Your task to perform on an android device: Find coffee shops on Maps Image 0: 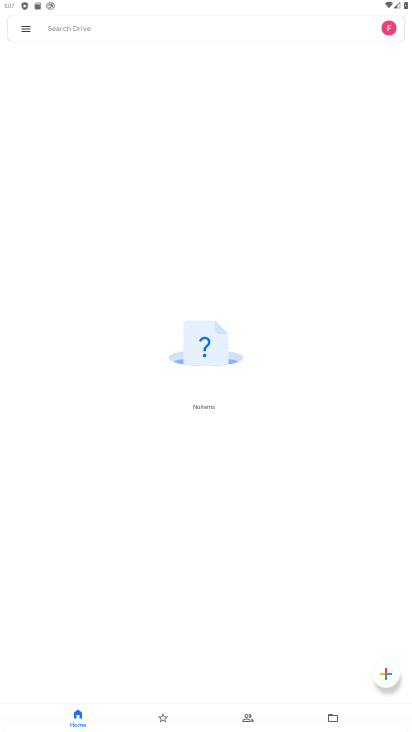
Step 0: press home button
Your task to perform on an android device: Find coffee shops on Maps Image 1: 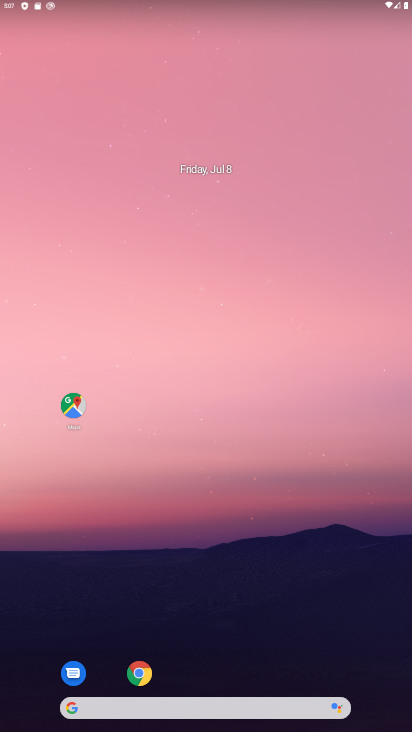
Step 1: click (82, 402)
Your task to perform on an android device: Find coffee shops on Maps Image 2: 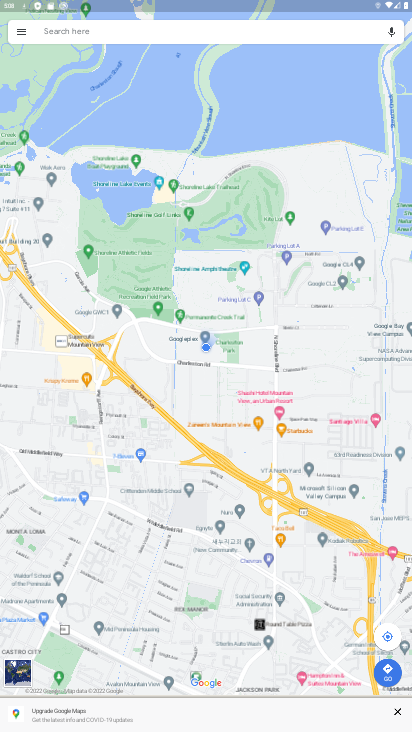
Step 2: click (142, 33)
Your task to perform on an android device: Find coffee shops on Maps Image 3: 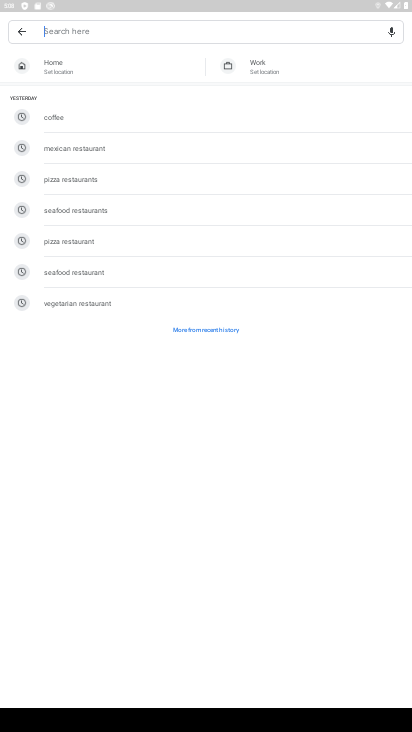
Step 3: type "coffee shops"
Your task to perform on an android device: Find coffee shops on Maps Image 4: 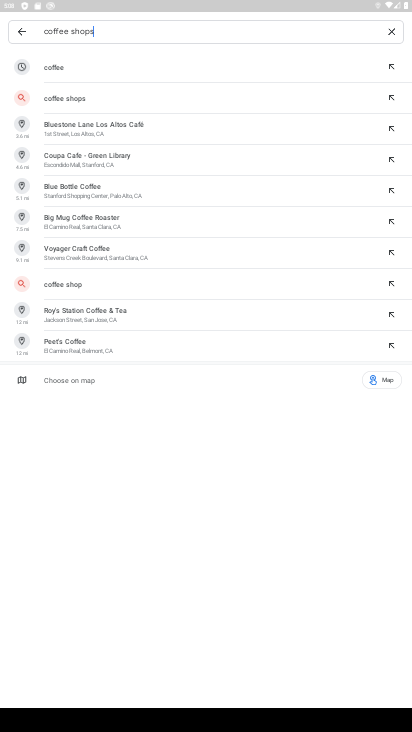
Step 4: click (71, 106)
Your task to perform on an android device: Find coffee shops on Maps Image 5: 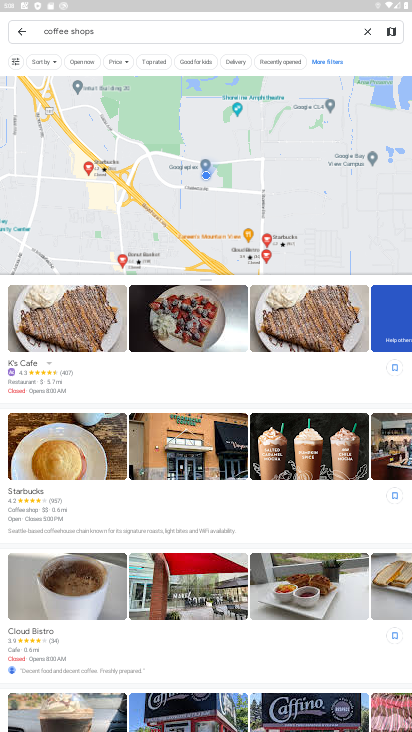
Step 5: task complete